Your task to perform on an android device: Go to accessibility settings Image 0: 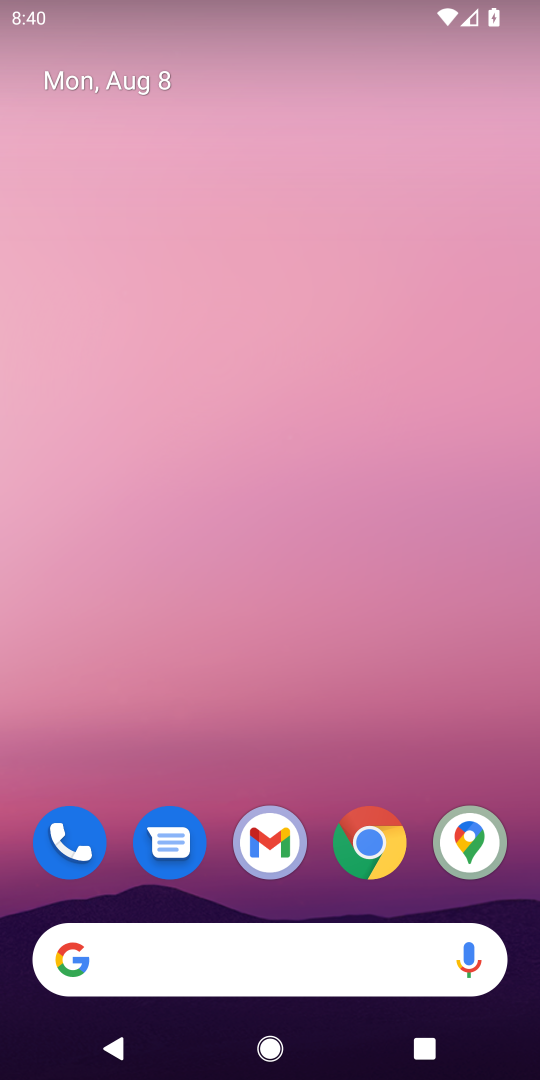
Step 0: drag from (278, 762) to (349, 0)
Your task to perform on an android device: Go to accessibility settings Image 1: 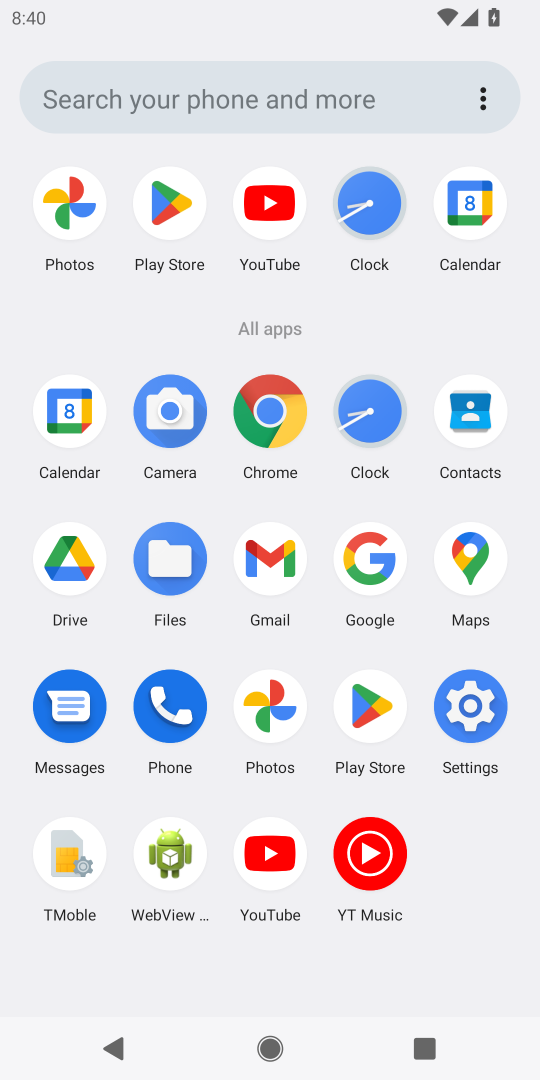
Step 1: click (475, 707)
Your task to perform on an android device: Go to accessibility settings Image 2: 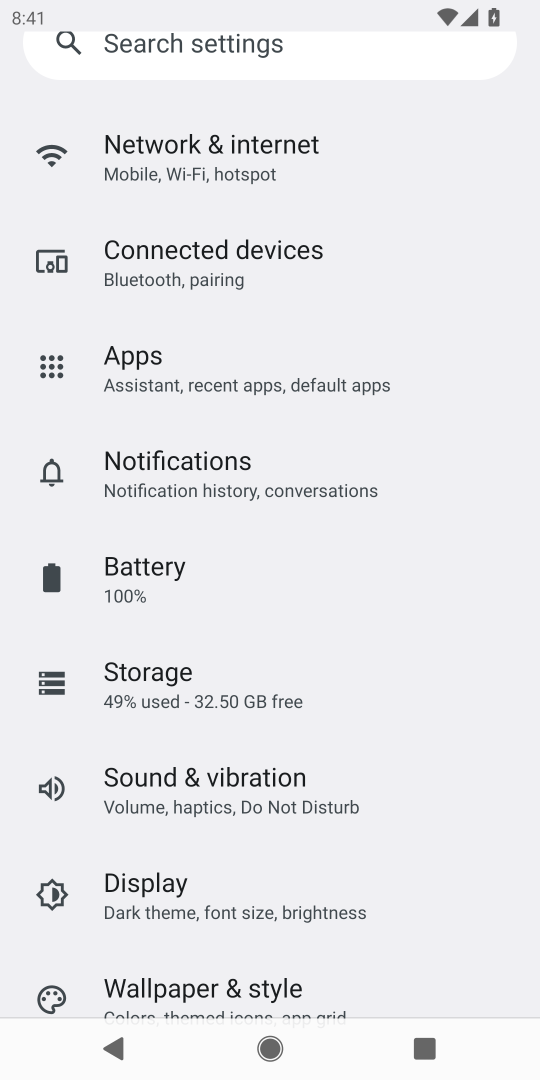
Step 2: drag from (264, 895) to (237, 479)
Your task to perform on an android device: Go to accessibility settings Image 3: 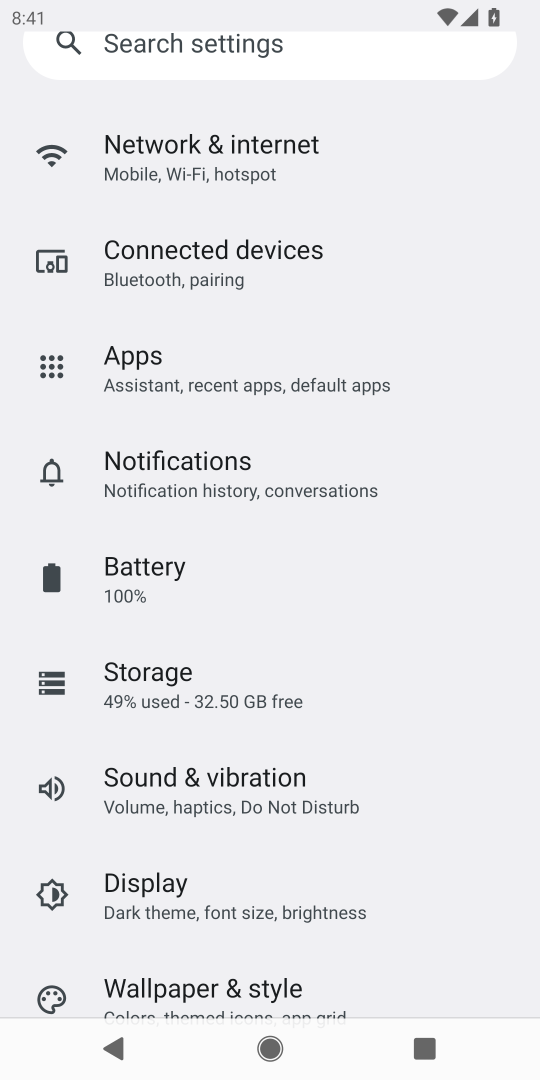
Step 3: drag from (202, 850) to (198, 213)
Your task to perform on an android device: Go to accessibility settings Image 4: 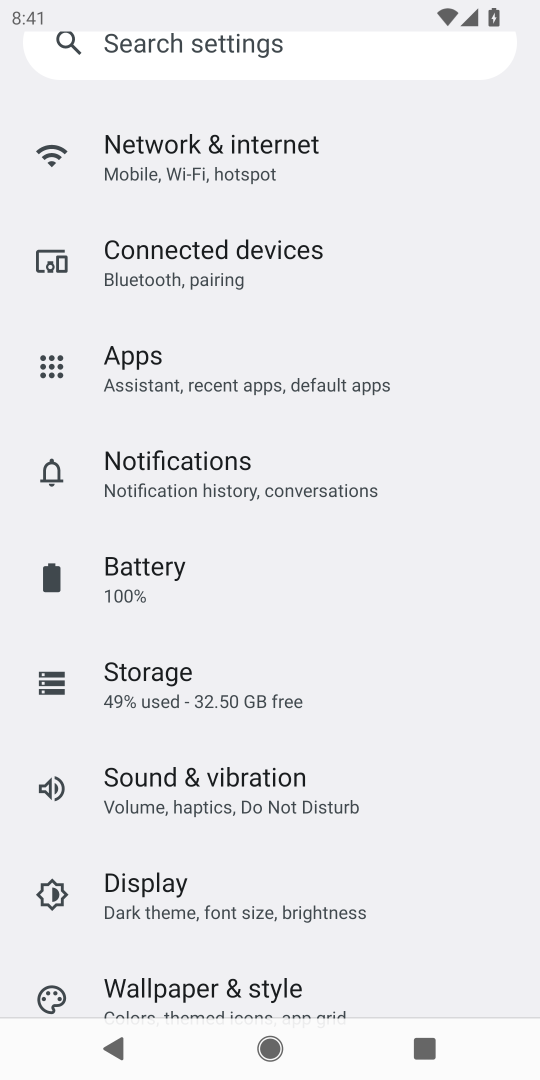
Step 4: drag from (124, 835) to (49, 253)
Your task to perform on an android device: Go to accessibility settings Image 5: 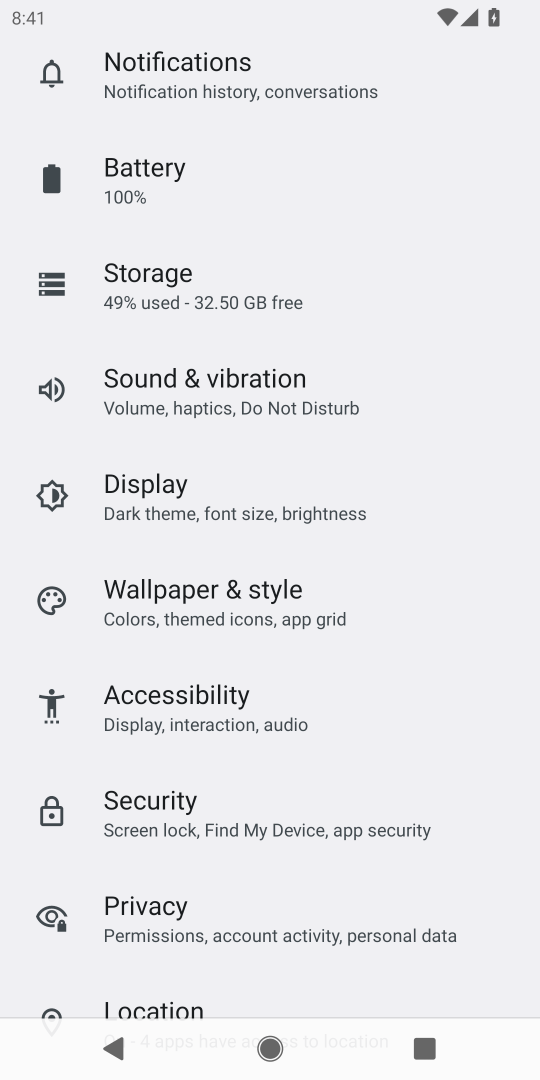
Step 5: drag from (171, 823) to (166, 368)
Your task to perform on an android device: Go to accessibility settings Image 6: 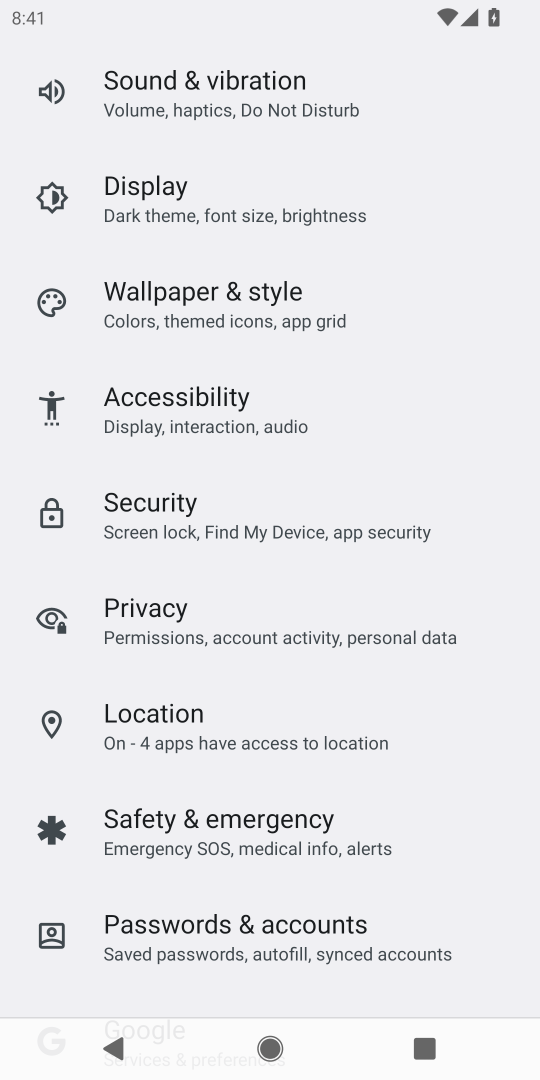
Step 6: click (190, 392)
Your task to perform on an android device: Go to accessibility settings Image 7: 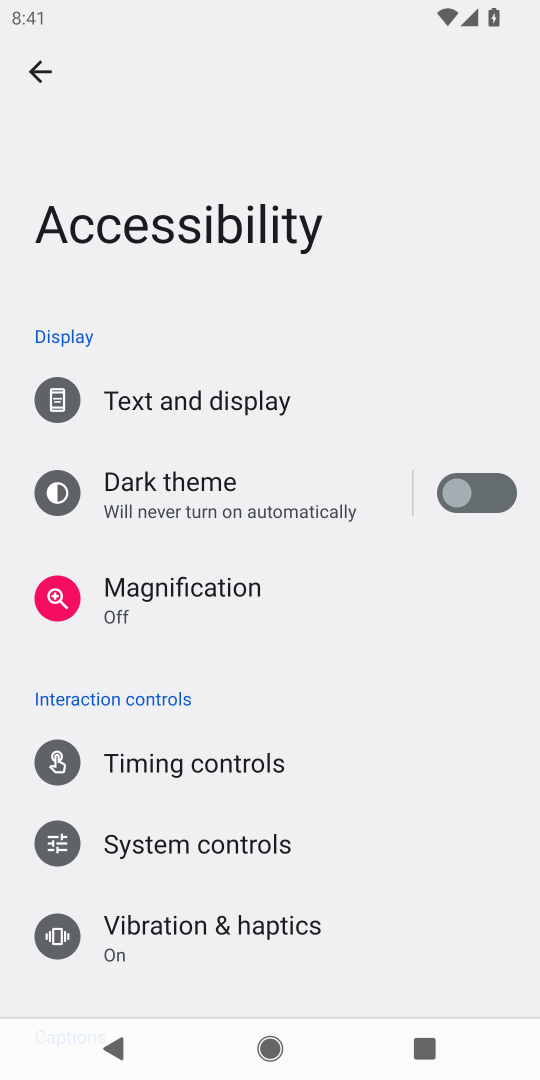
Step 7: task complete